Your task to perform on an android device: toggle notification dots Image 0: 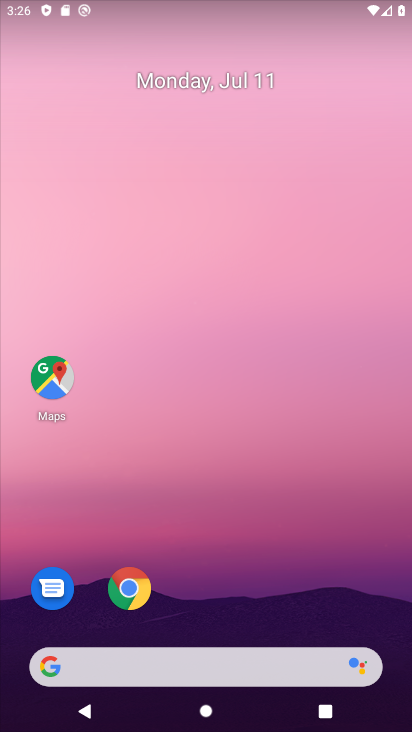
Step 0: drag from (225, 627) to (228, 32)
Your task to perform on an android device: toggle notification dots Image 1: 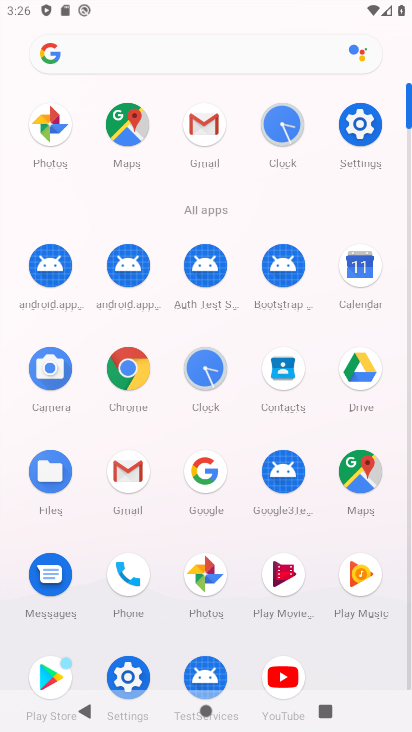
Step 1: click (365, 122)
Your task to perform on an android device: toggle notification dots Image 2: 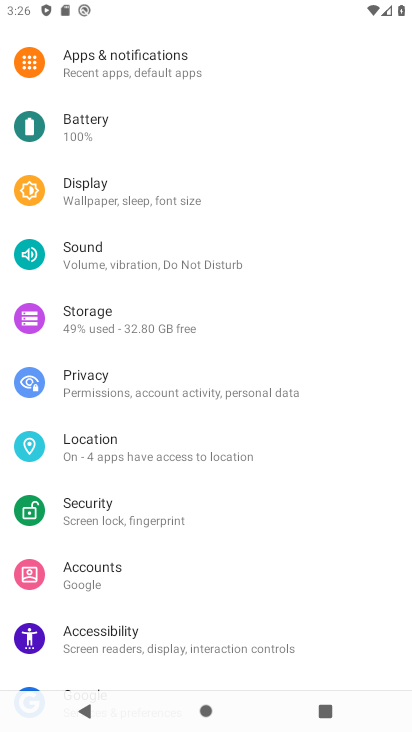
Step 2: drag from (263, 594) to (260, 230)
Your task to perform on an android device: toggle notification dots Image 3: 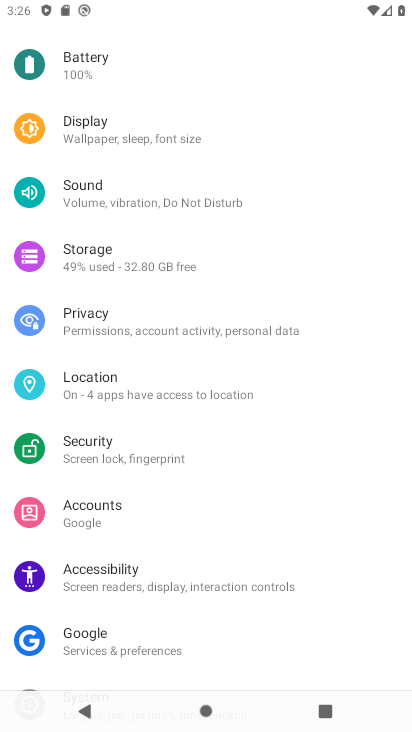
Step 3: drag from (257, 96) to (267, 670)
Your task to perform on an android device: toggle notification dots Image 4: 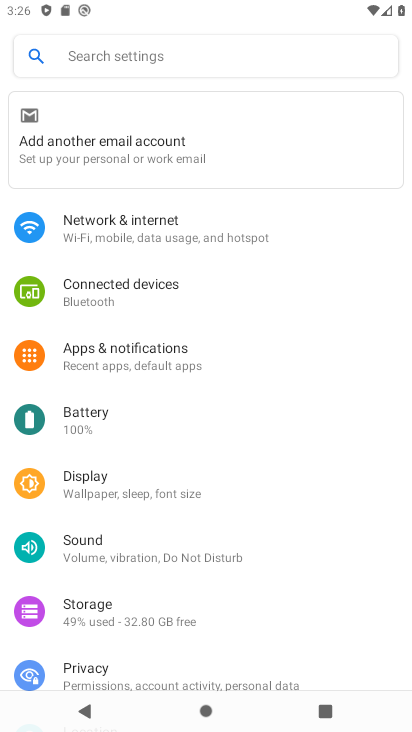
Step 4: click (125, 357)
Your task to perform on an android device: toggle notification dots Image 5: 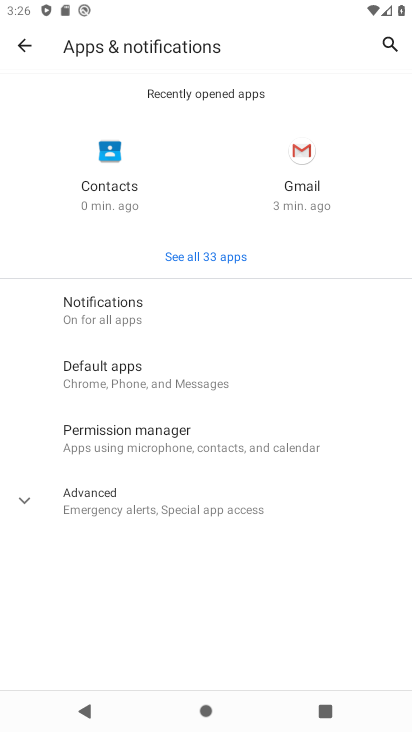
Step 5: click (95, 502)
Your task to perform on an android device: toggle notification dots Image 6: 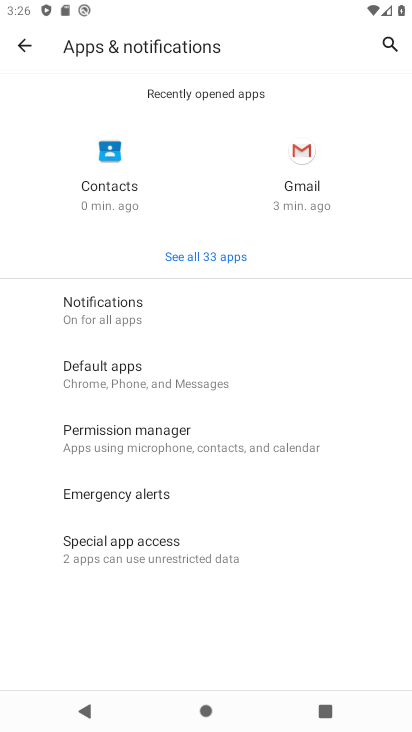
Step 6: drag from (314, 601) to (268, 125)
Your task to perform on an android device: toggle notification dots Image 7: 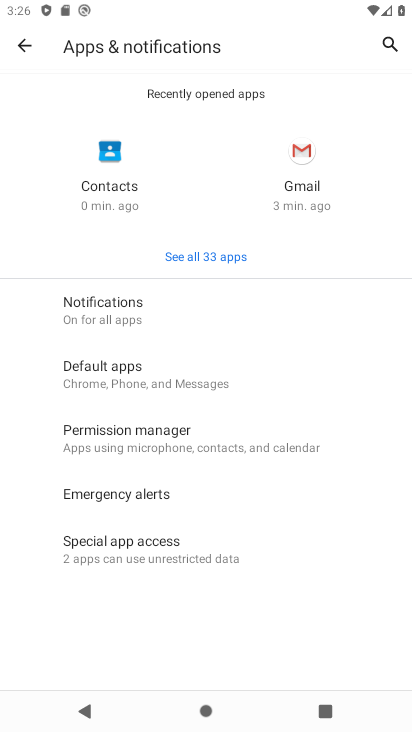
Step 7: click (92, 304)
Your task to perform on an android device: toggle notification dots Image 8: 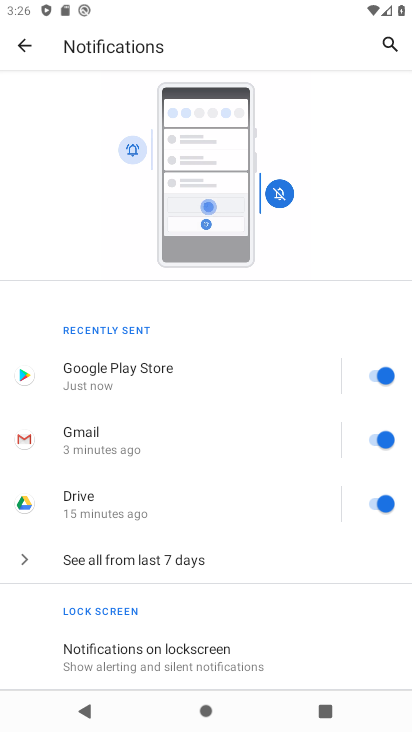
Step 8: drag from (271, 603) to (288, 120)
Your task to perform on an android device: toggle notification dots Image 9: 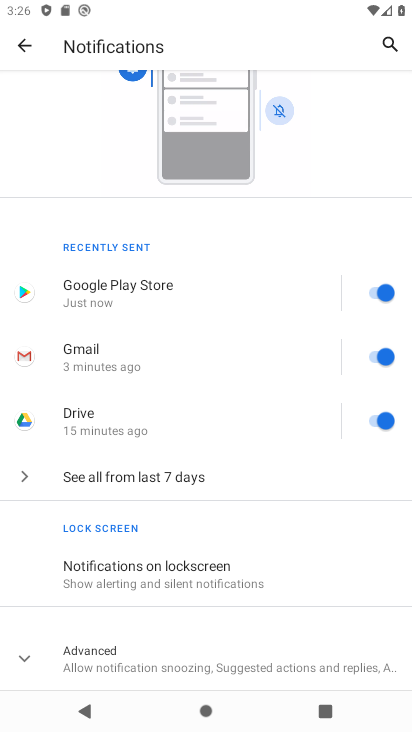
Step 9: click (83, 666)
Your task to perform on an android device: toggle notification dots Image 10: 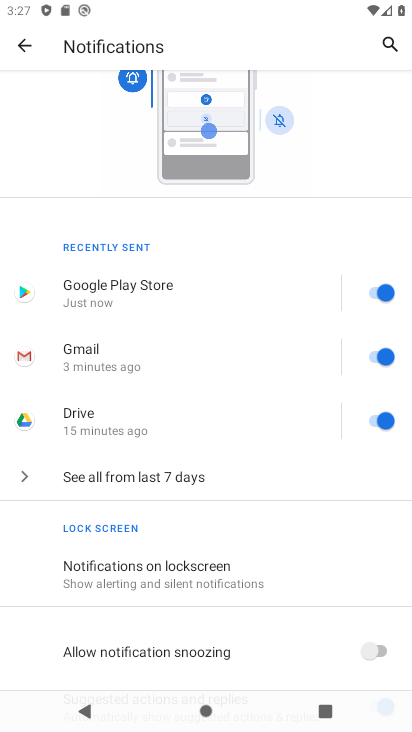
Step 10: drag from (280, 622) to (305, 147)
Your task to perform on an android device: toggle notification dots Image 11: 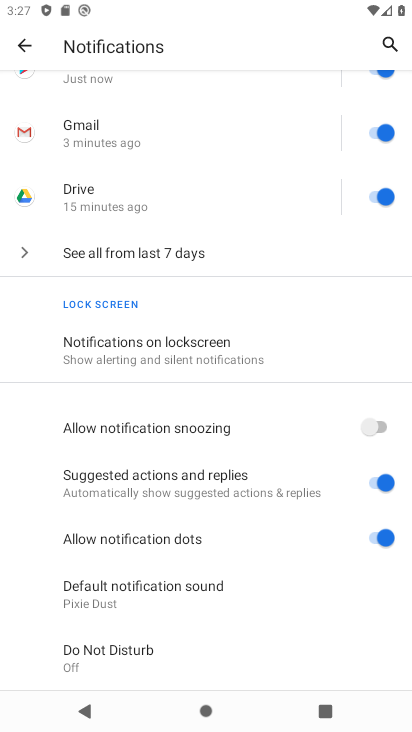
Step 11: click (385, 537)
Your task to perform on an android device: toggle notification dots Image 12: 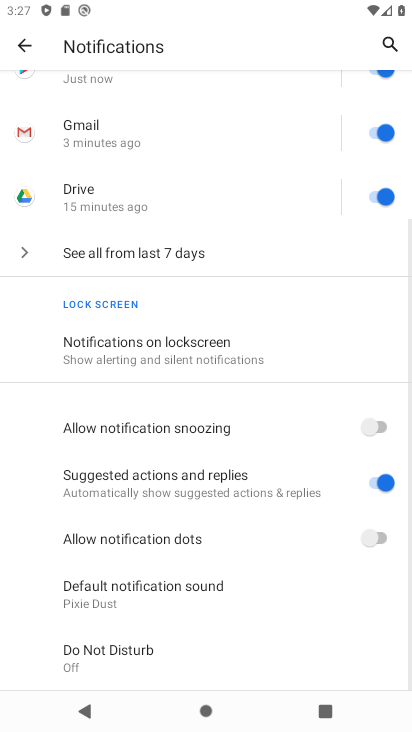
Step 12: task complete